Your task to perform on an android device: delete location history Image 0: 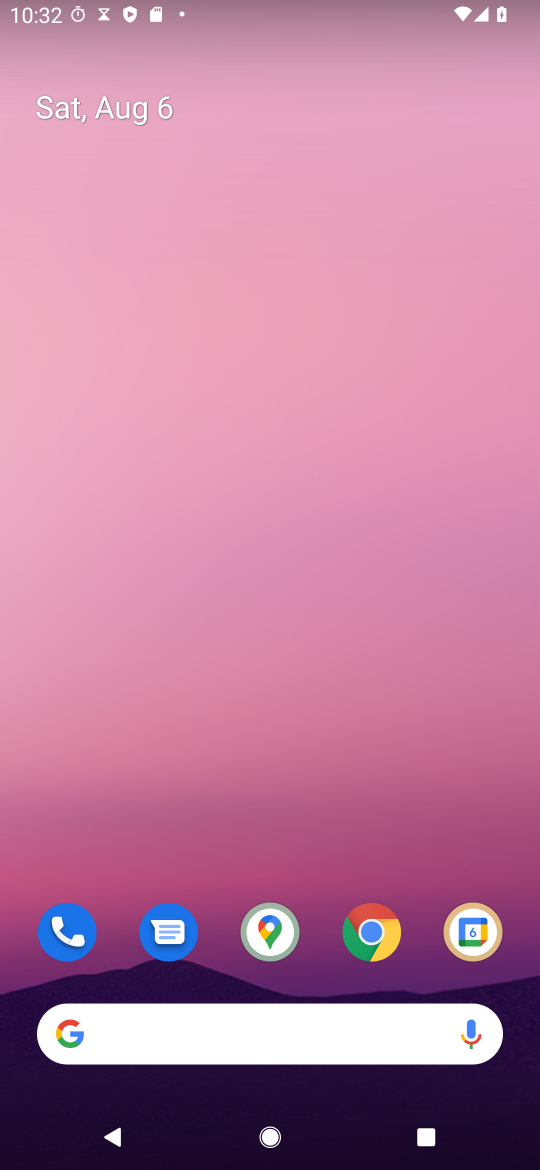
Step 0: drag from (216, 1036) to (268, 244)
Your task to perform on an android device: delete location history Image 1: 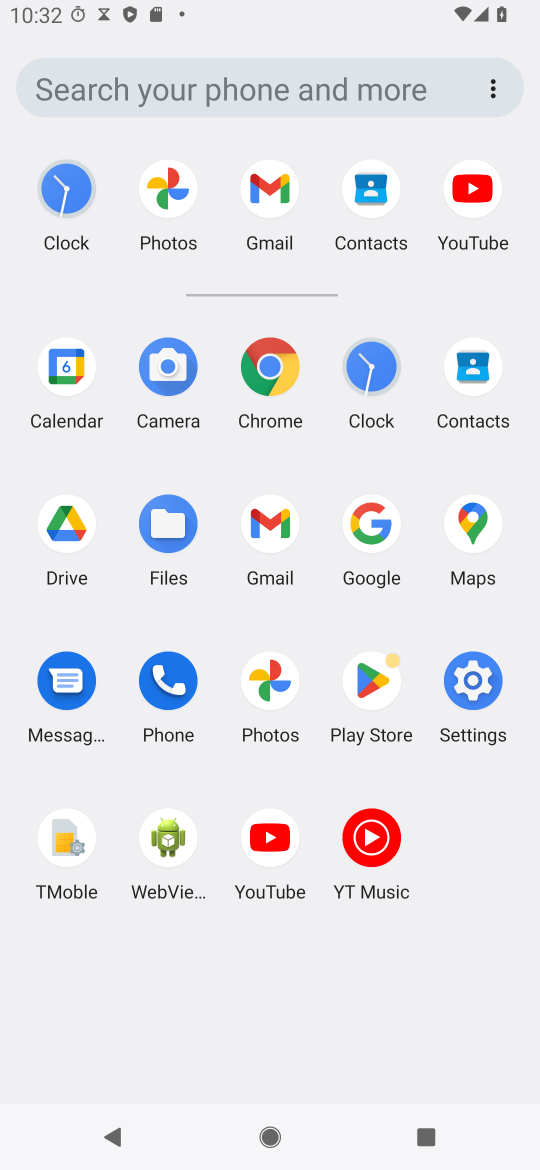
Step 1: click (475, 517)
Your task to perform on an android device: delete location history Image 2: 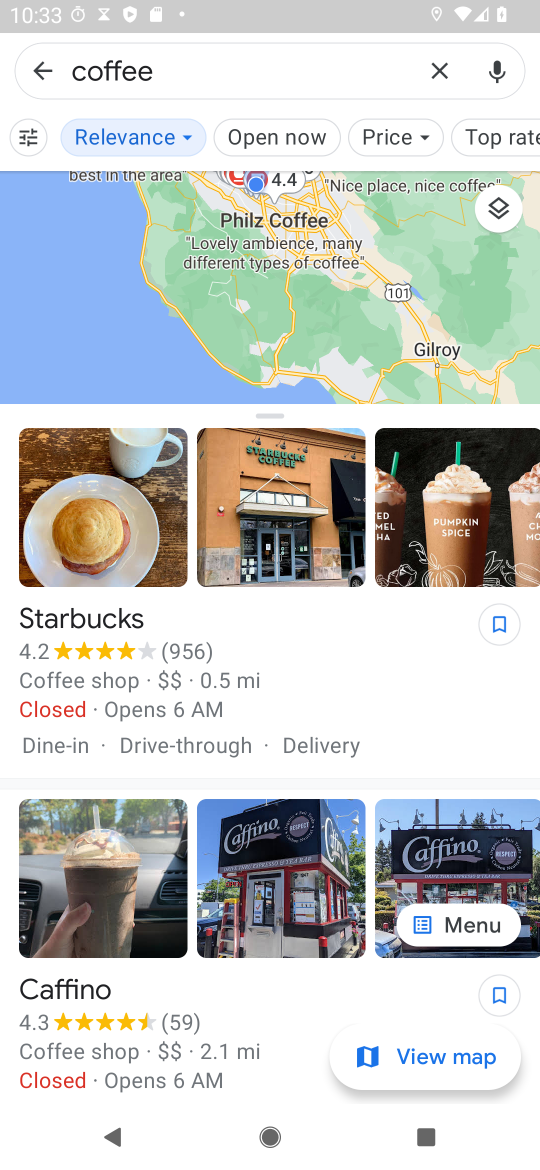
Step 2: press back button
Your task to perform on an android device: delete location history Image 3: 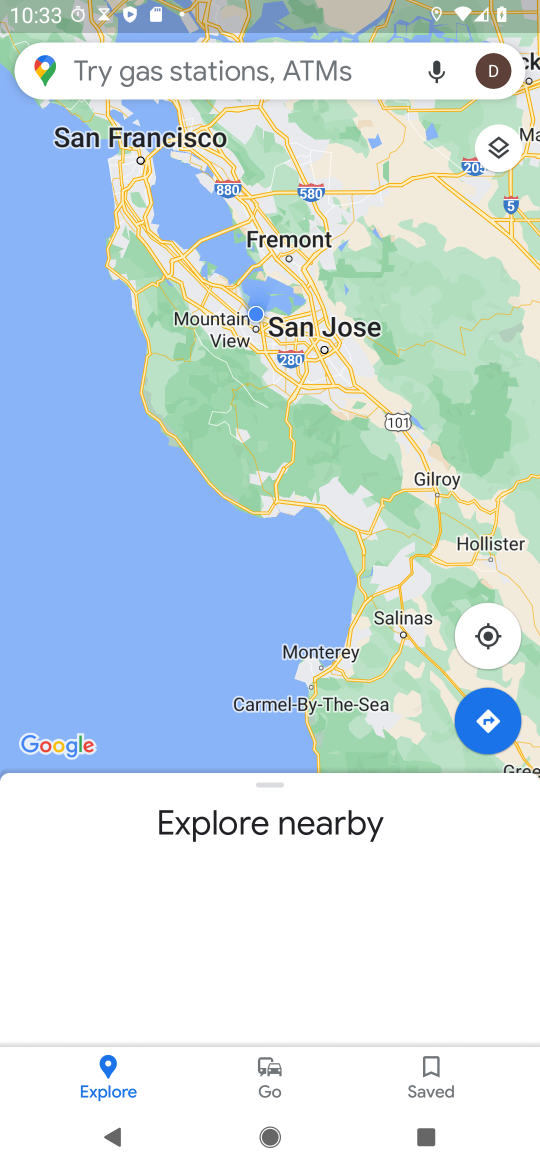
Step 3: click (488, 72)
Your task to perform on an android device: delete location history Image 4: 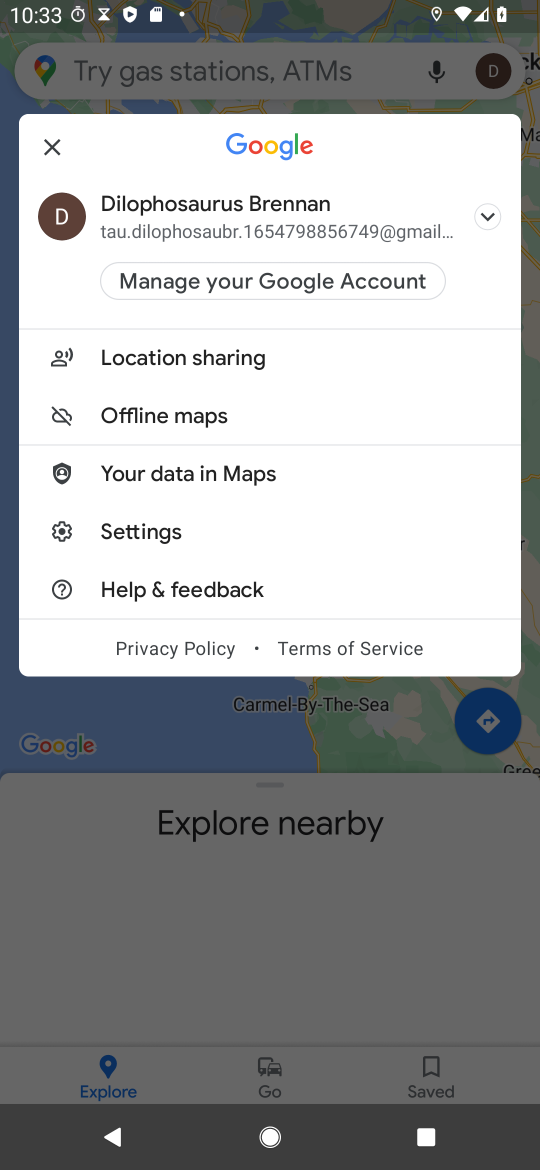
Step 4: click (148, 527)
Your task to perform on an android device: delete location history Image 5: 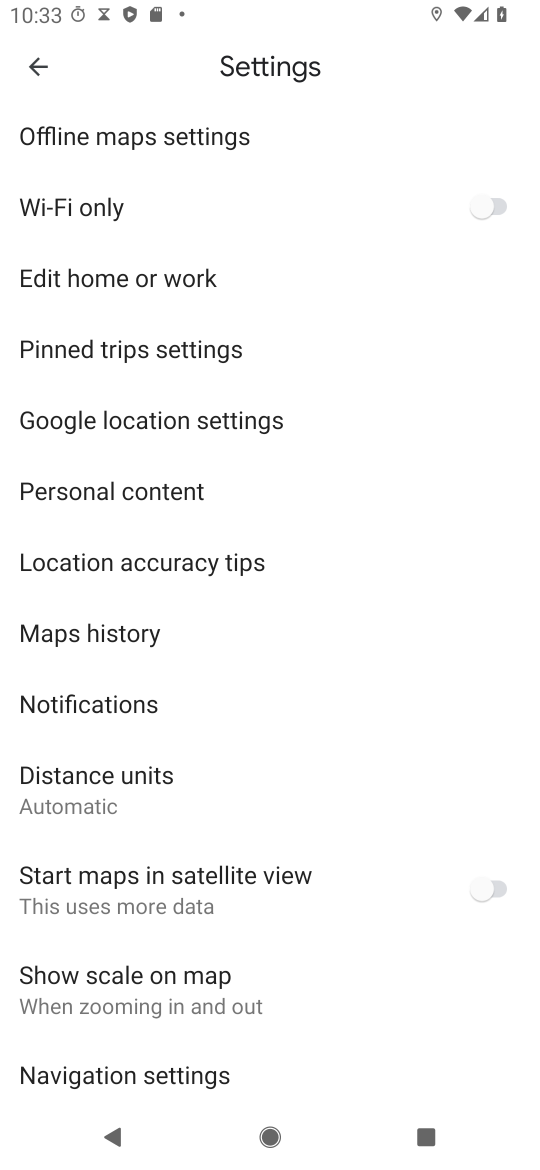
Step 5: click (161, 485)
Your task to perform on an android device: delete location history Image 6: 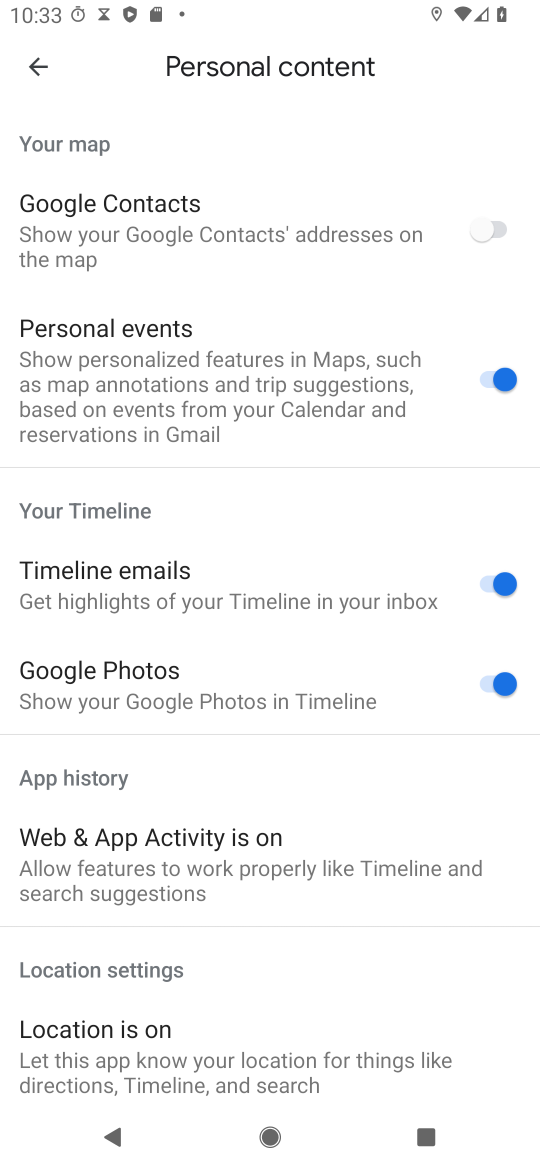
Step 6: drag from (203, 993) to (214, 815)
Your task to perform on an android device: delete location history Image 7: 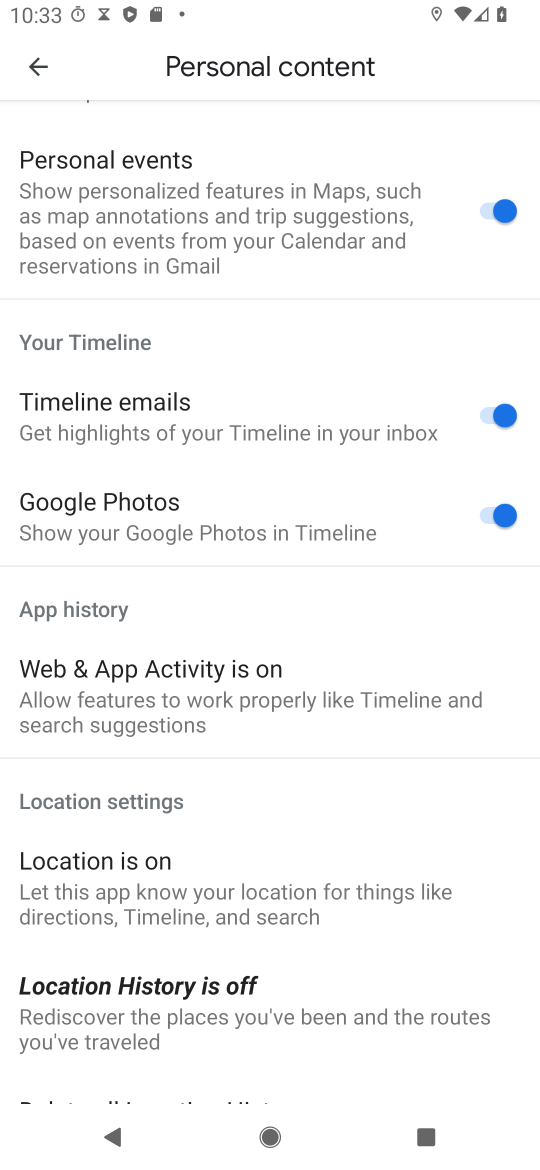
Step 7: drag from (245, 978) to (278, 841)
Your task to perform on an android device: delete location history Image 8: 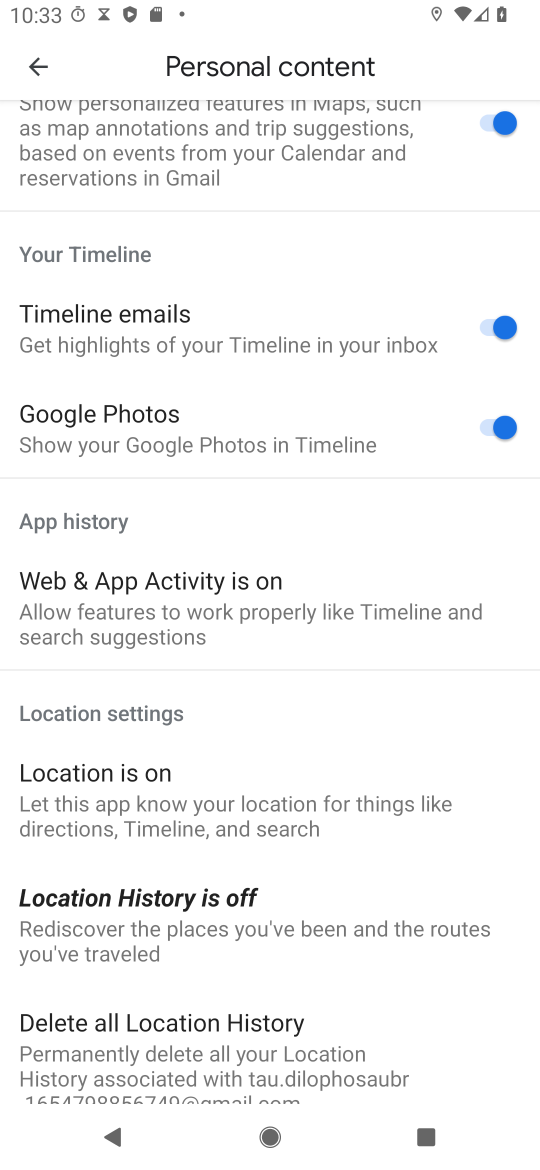
Step 8: drag from (191, 992) to (250, 862)
Your task to perform on an android device: delete location history Image 9: 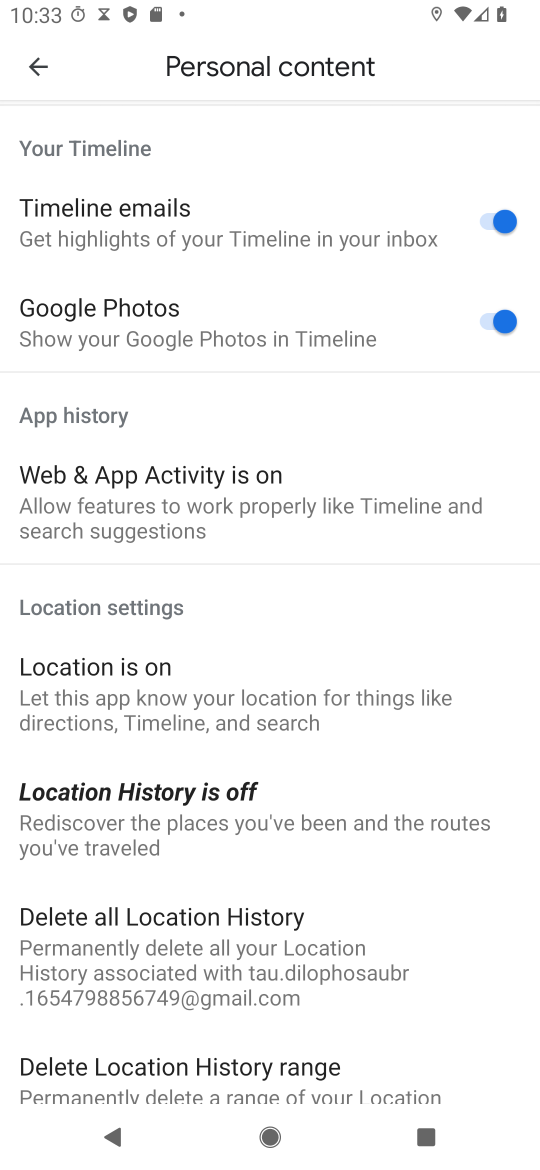
Step 9: click (203, 929)
Your task to perform on an android device: delete location history Image 10: 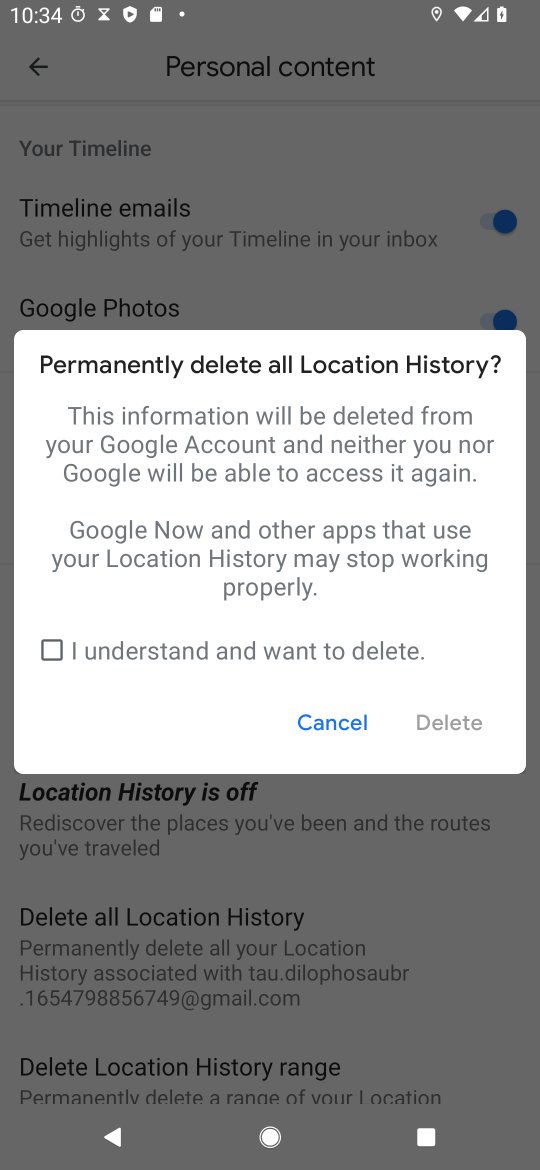
Step 10: click (45, 649)
Your task to perform on an android device: delete location history Image 11: 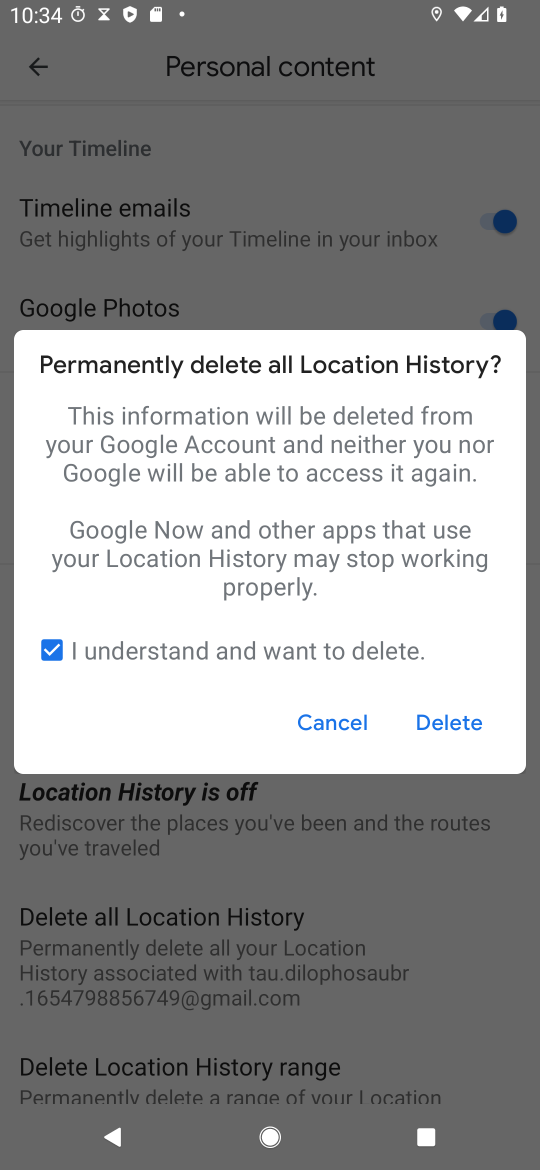
Step 11: click (444, 729)
Your task to perform on an android device: delete location history Image 12: 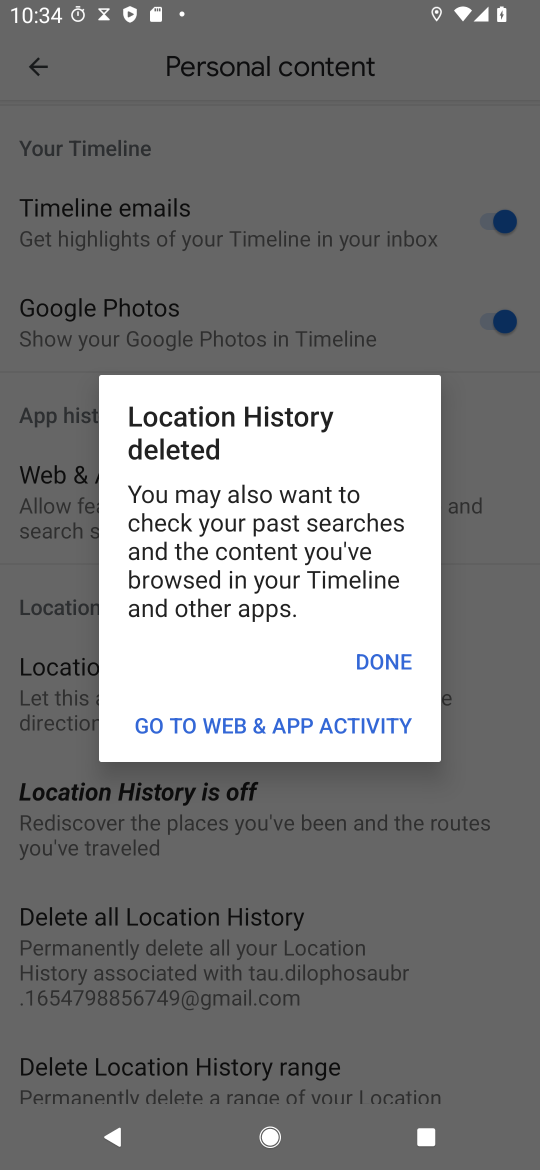
Step 12: click (370, 668)
Your task to perform on an android device: delete location history Image 13: 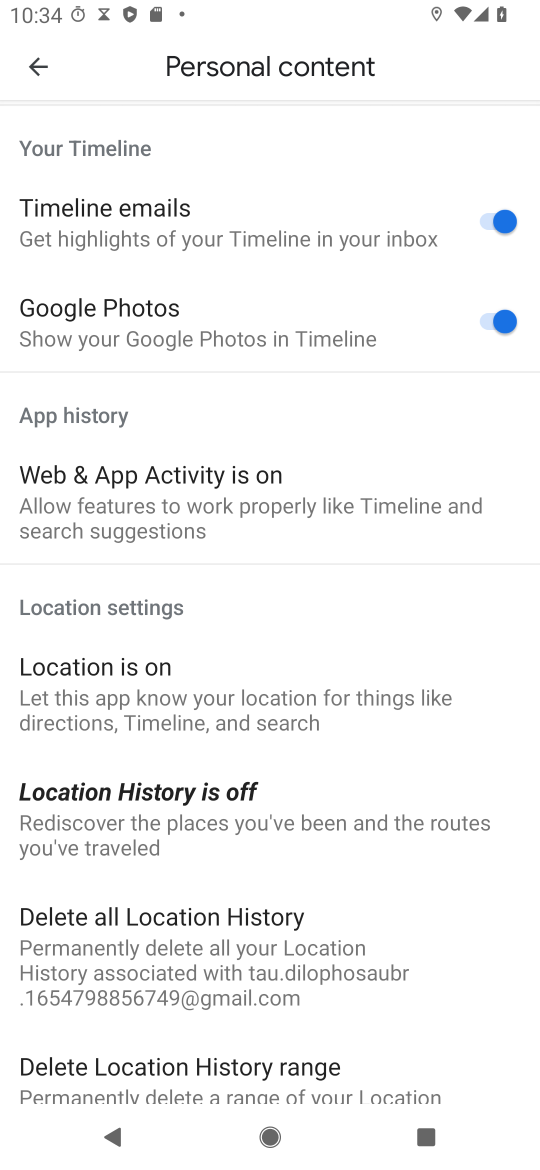
Step 13: task complete